Your task to perform on an android device: open wifi settings Image 0: 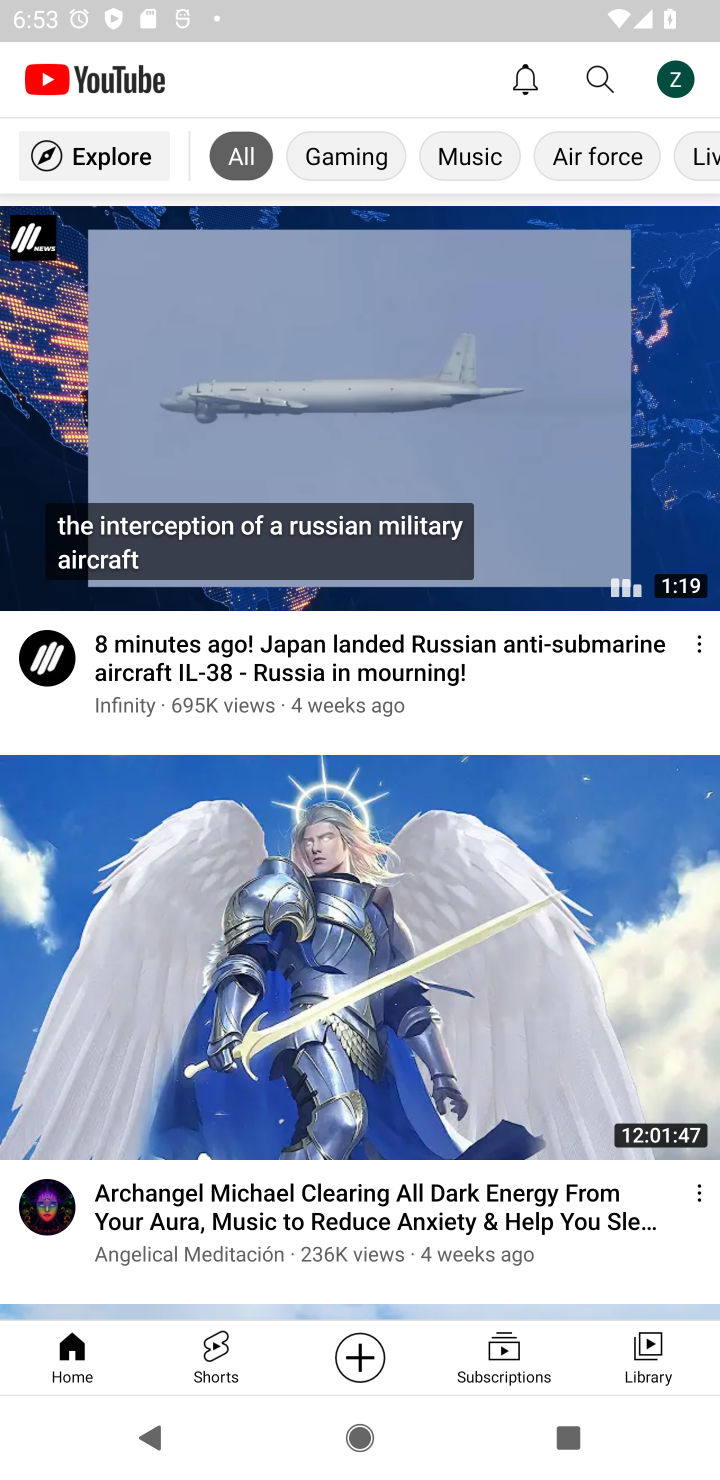
Step 0: drag from (305, 98) to (182, 1287)
Your task to perform on an android device: open wifi settings Image 1: 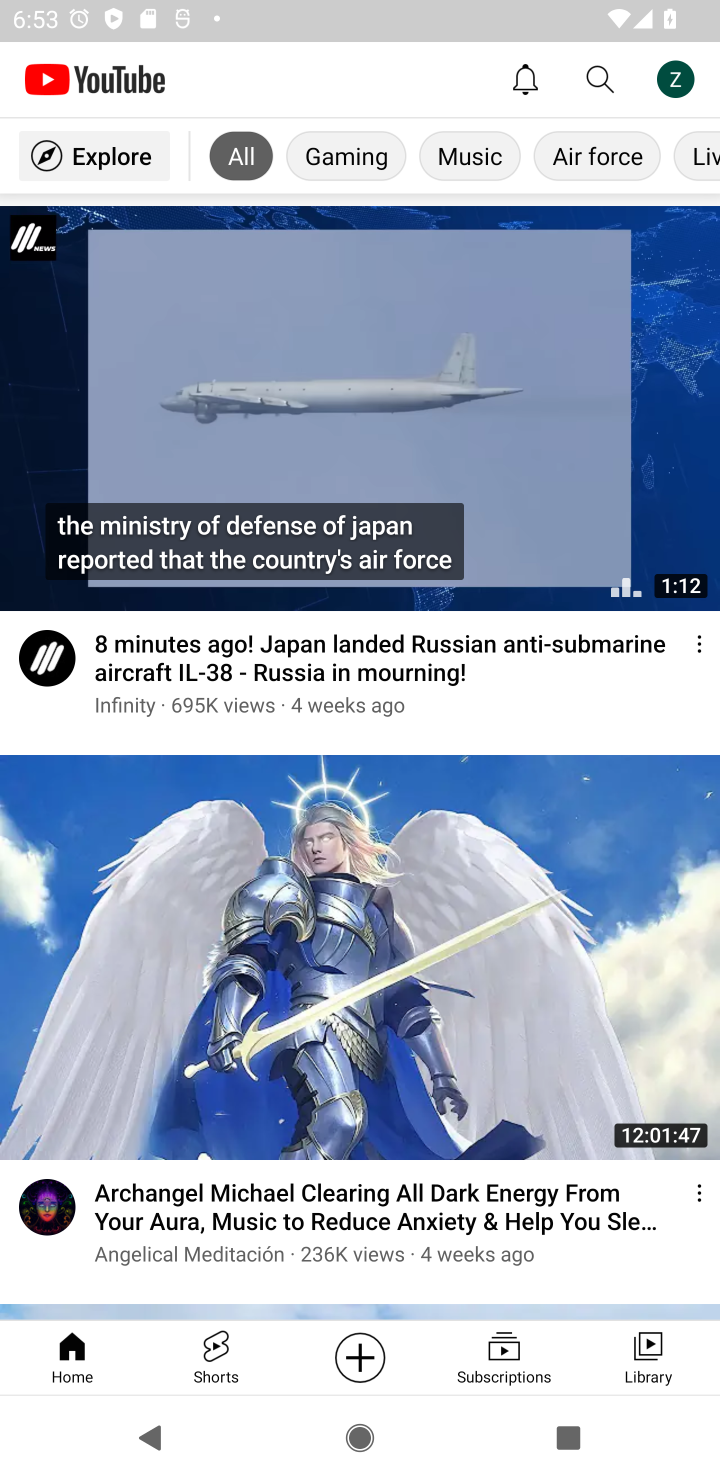
Step 1: drag from (290, 109) to (114, 1403)
Your task to perform on an android device: open wifi settings Image 2: 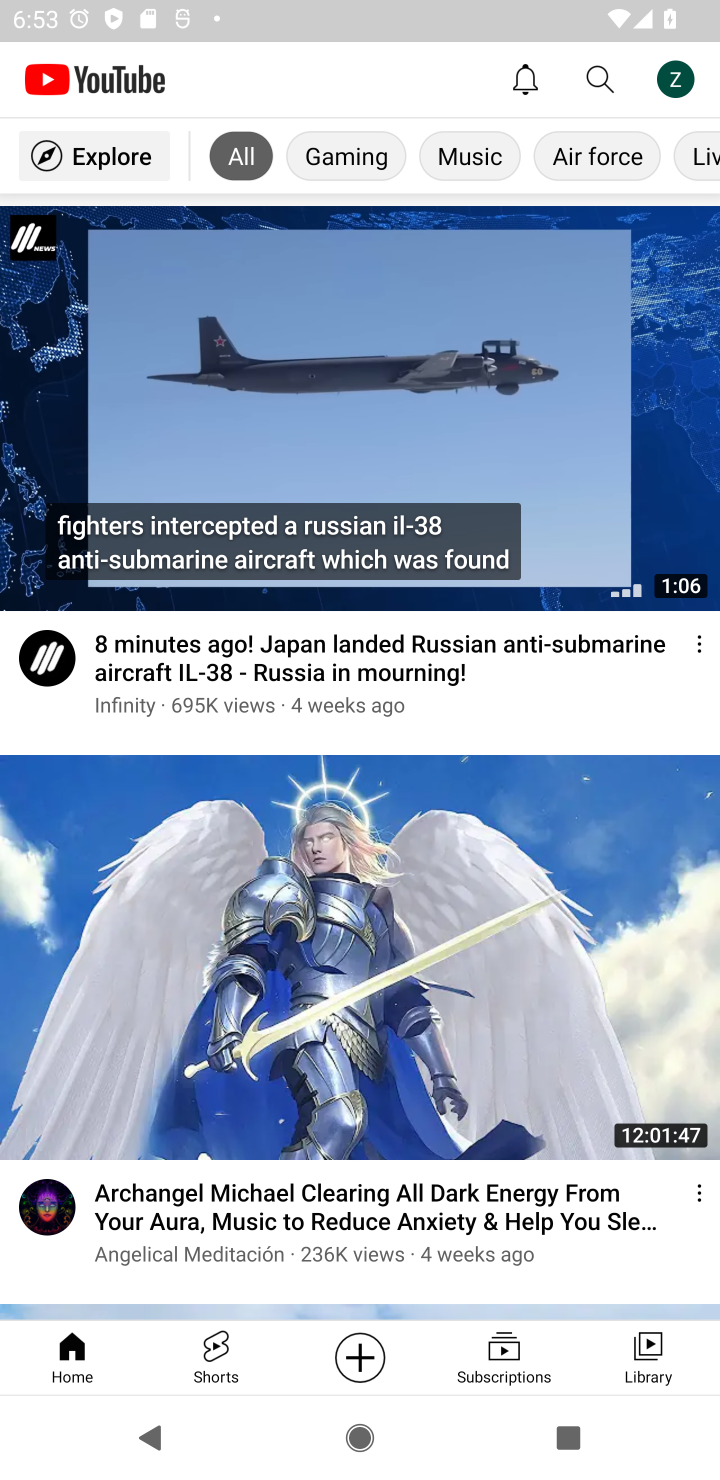
Step 2: press home button
Your task to perform on an android device: open wifi settings Image 3: 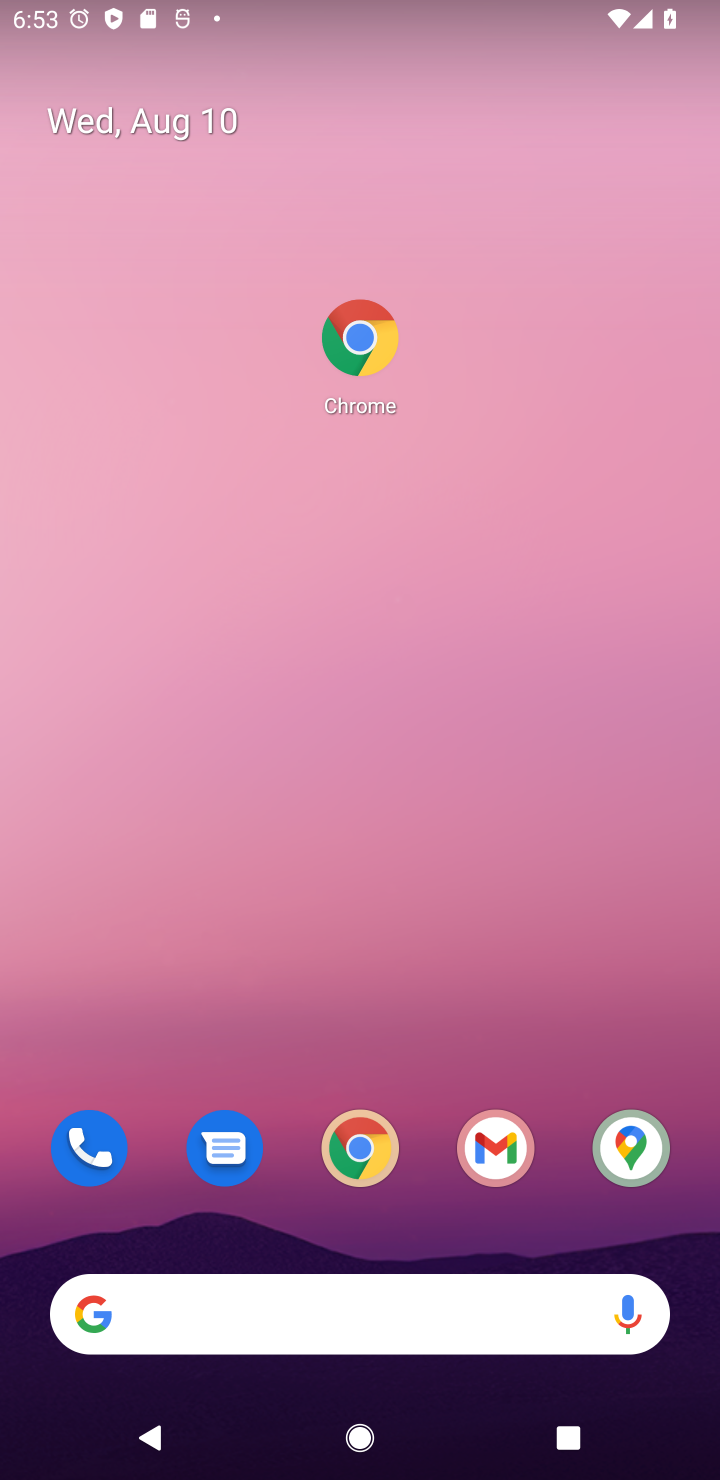
Step 3: drag from (414, 1146) to (433, 143)
Your task to perform on an android device: open wifi settings Image 4: 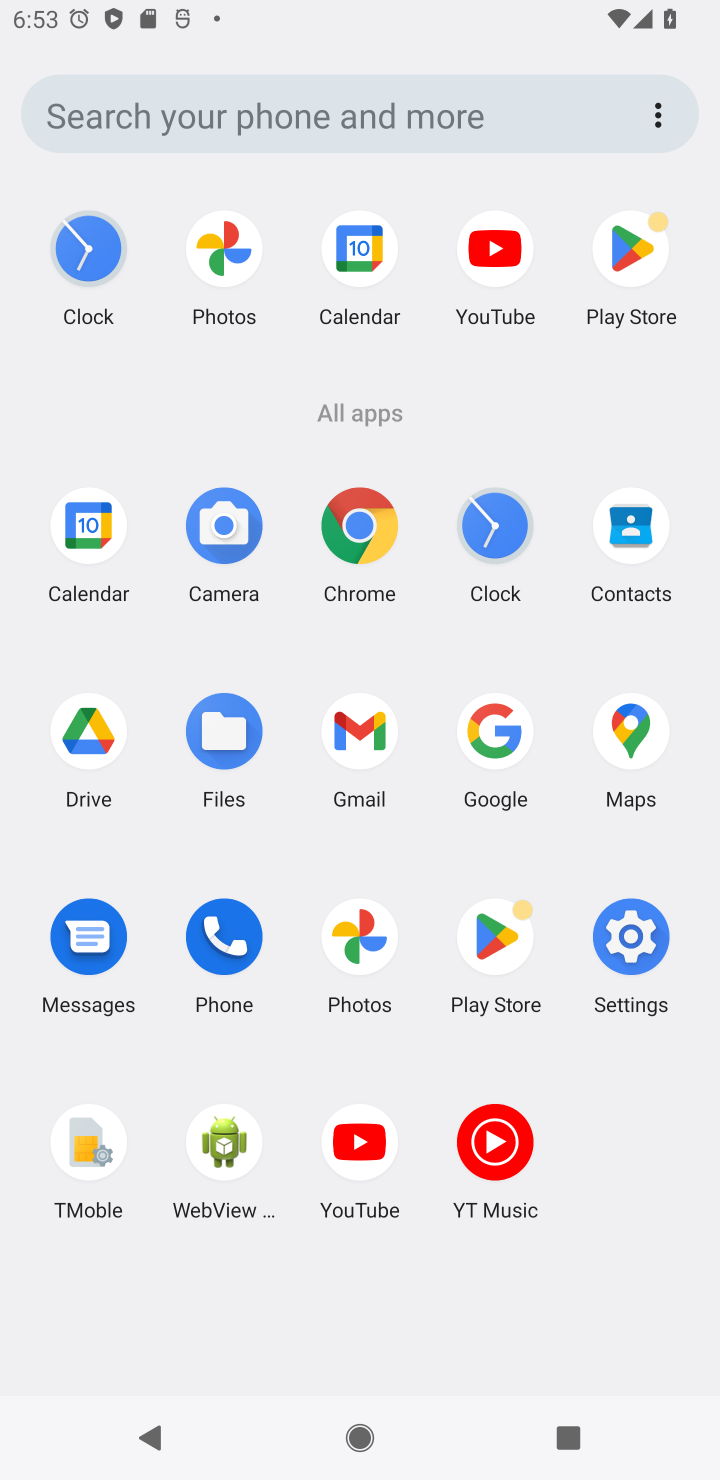
Step 4: click (624, 931)
Your task to perform on an android device: open wifi settings Image 5: 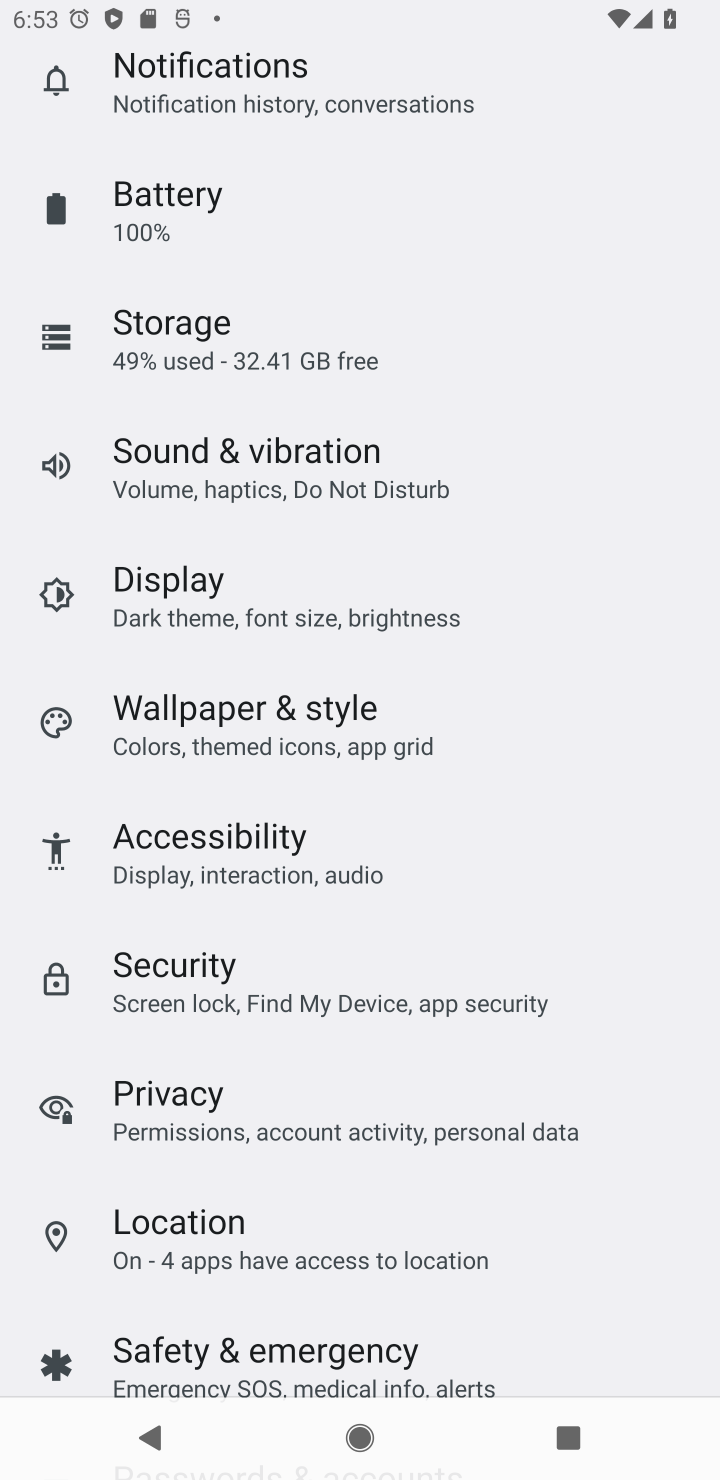
Step 5: drag from (456, 127) to (347, 1153)
Your task to perform on an android device: open wifi settings Image 6: 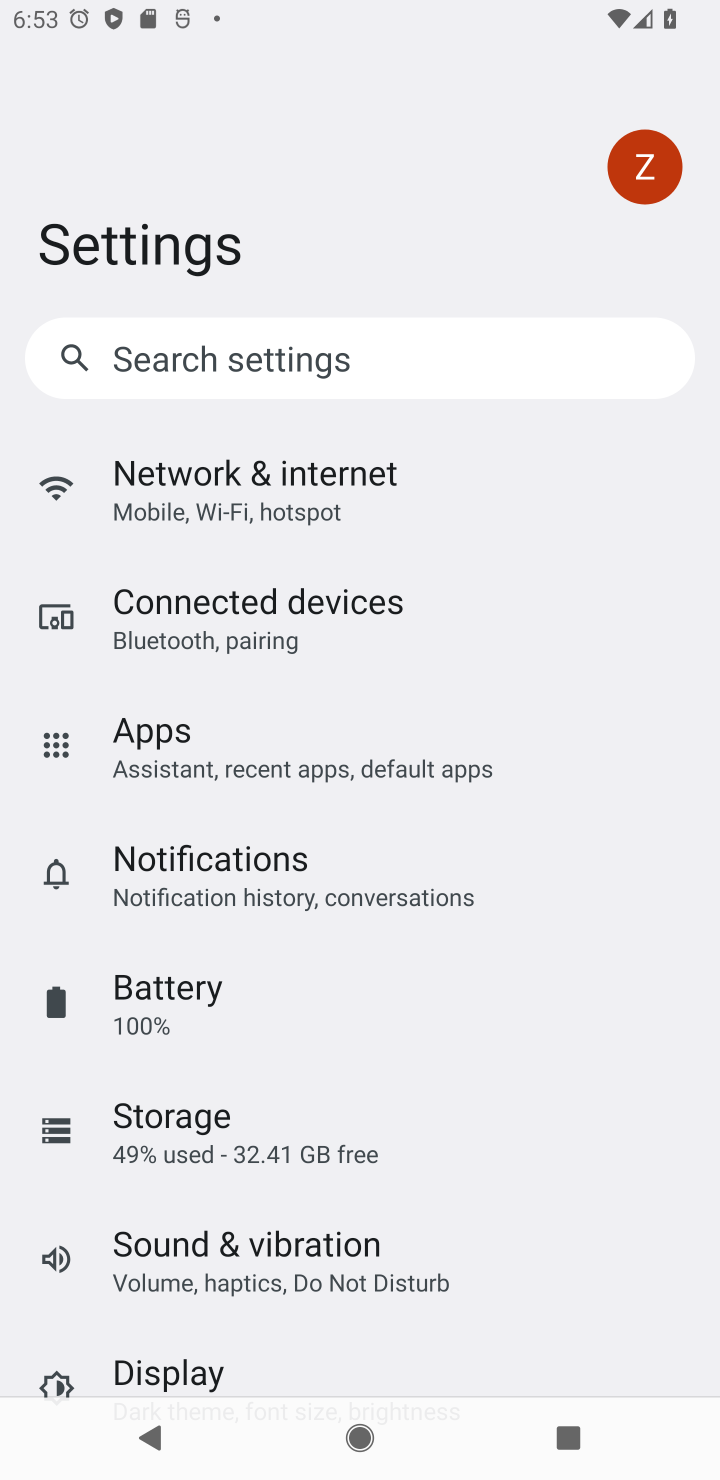
Step 6: click (249, 510)
Your task to perform on an android device: open wifi settings Image 7: 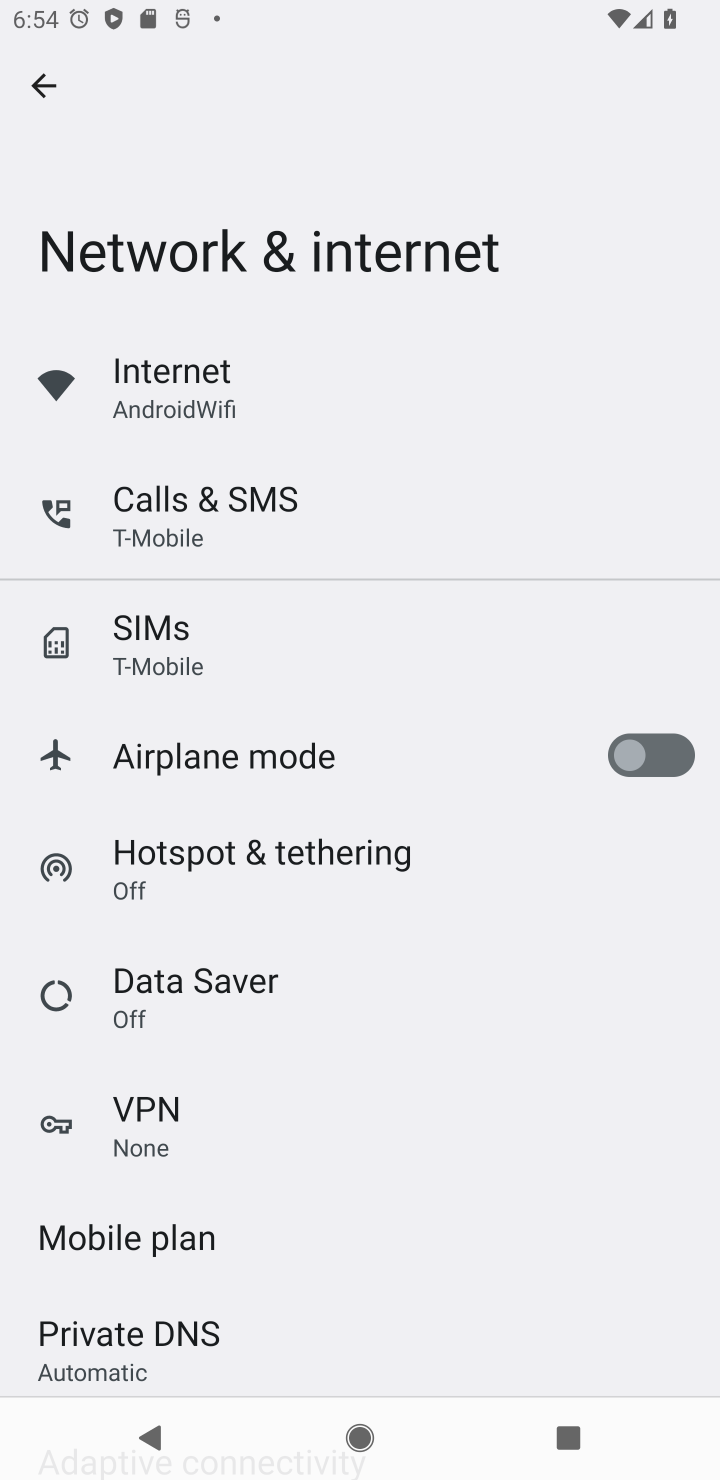
Step 7: click (252, 368)
Your task to perform on an android device: open wifi settings Image 8: 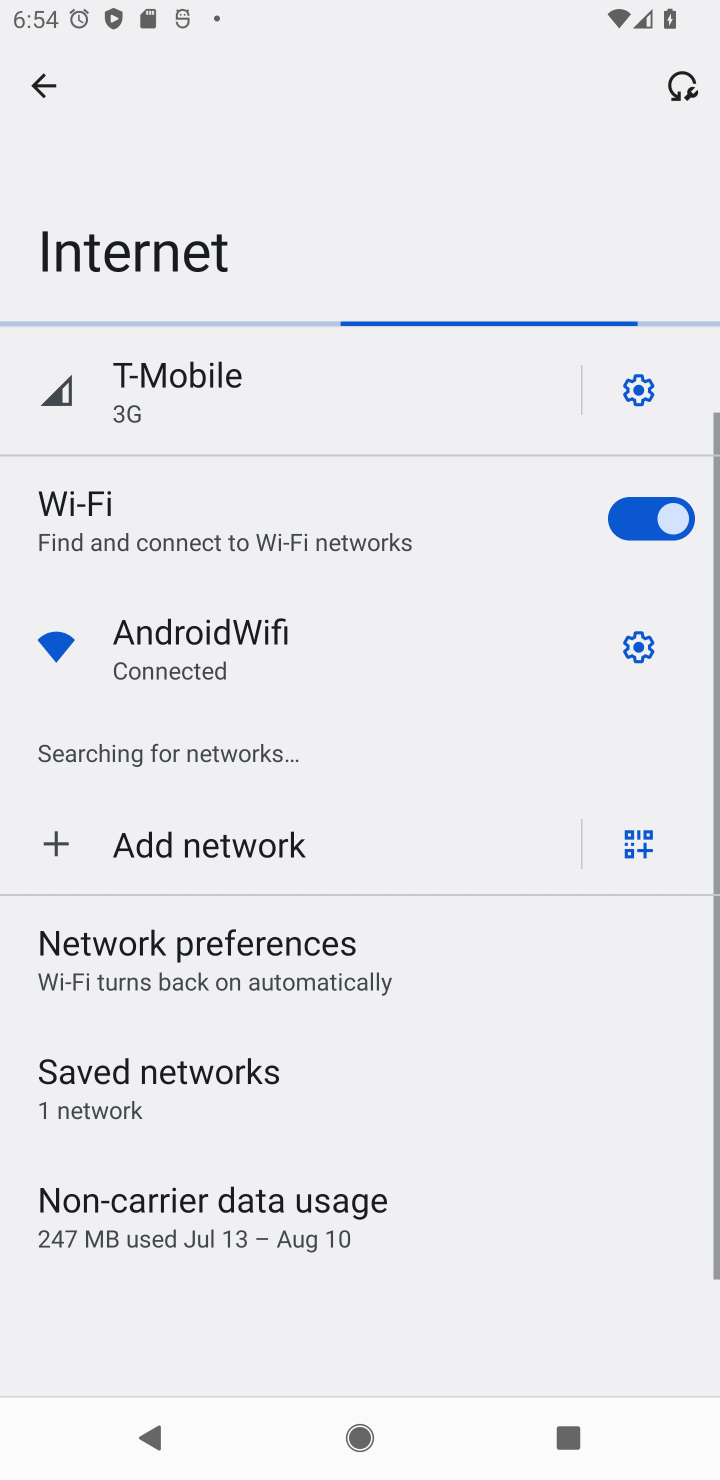
Step 8: click (604, 637)
Your task to perform on an android device: open wifi settings Image 9: 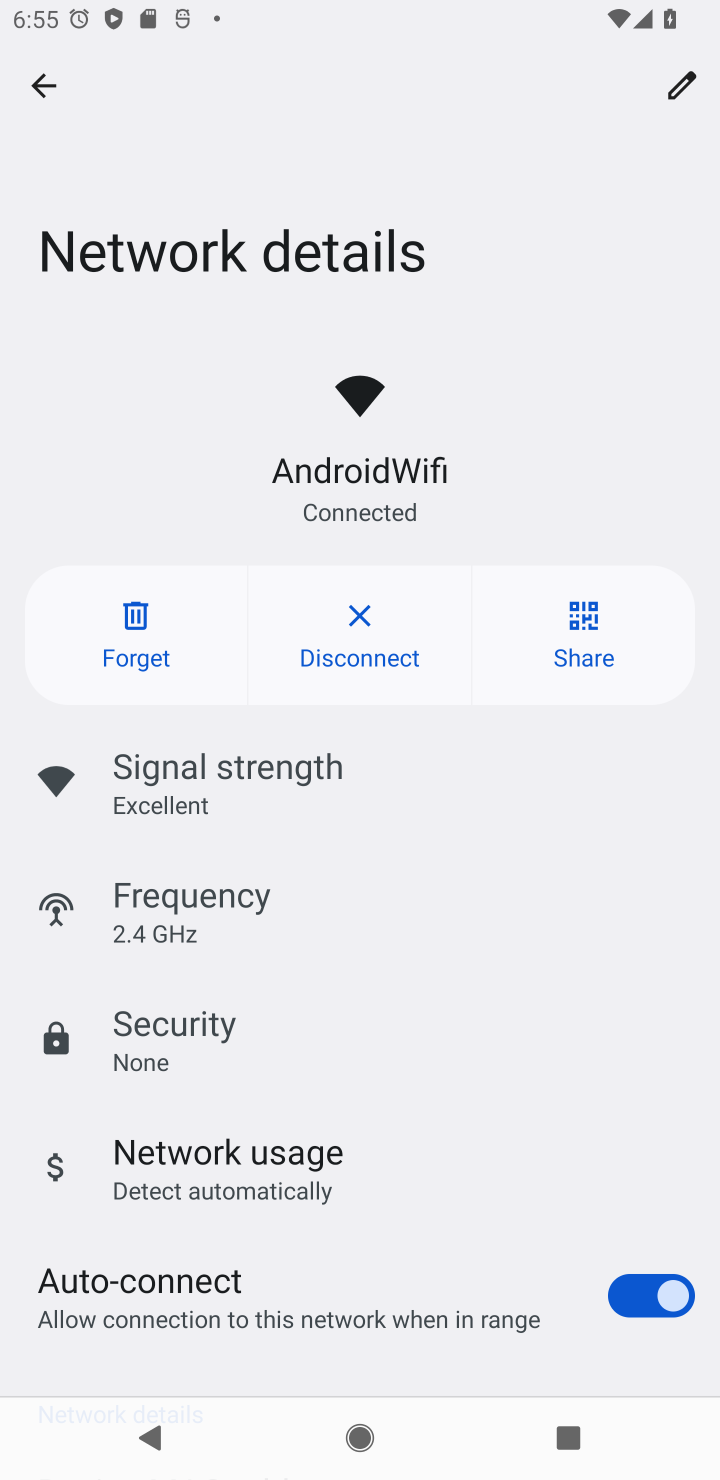
Step 9: task complete